Your task to perform on an android device: toggle notifications settings in the gmail app Image 0: 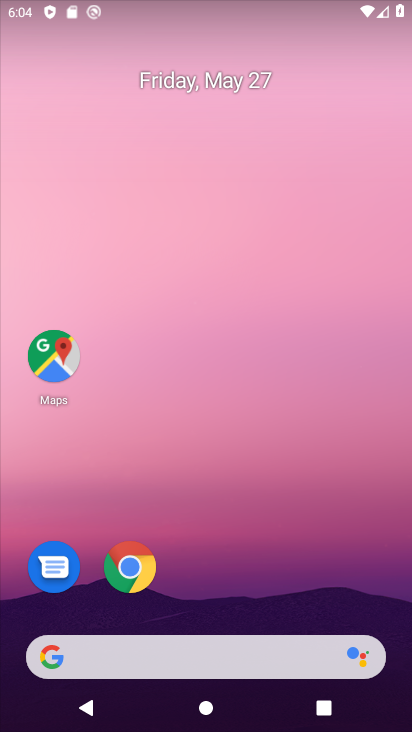
Step 0: drag from (247, 589) to (170, 0)
Your task to perform on an android device: toggle notifications settings in the gmail app Image 1: 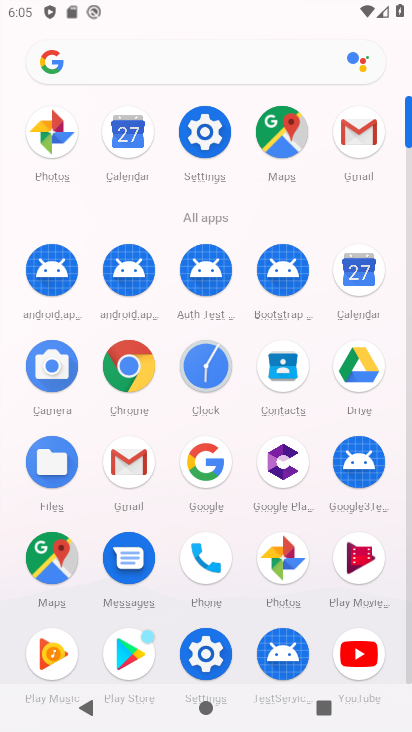
Step 1: click (353, 132)
Your task to perform on an android device: toggle notifications settings in the gmail app Image 2: 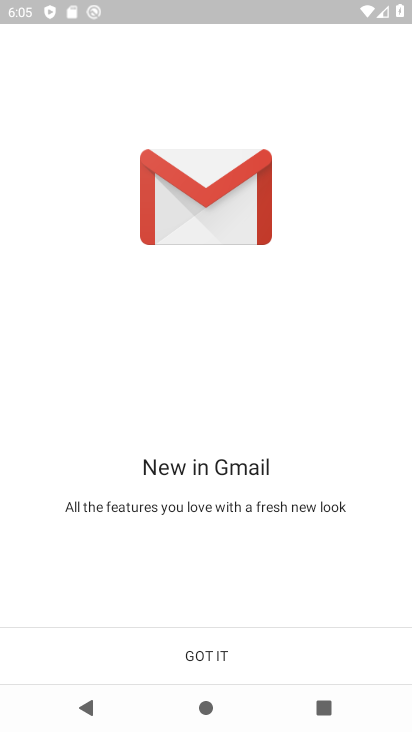
Step 2: click (218, 661)
Your task to perform on an android device: toggle notifications settings in the gmail app Image 3: 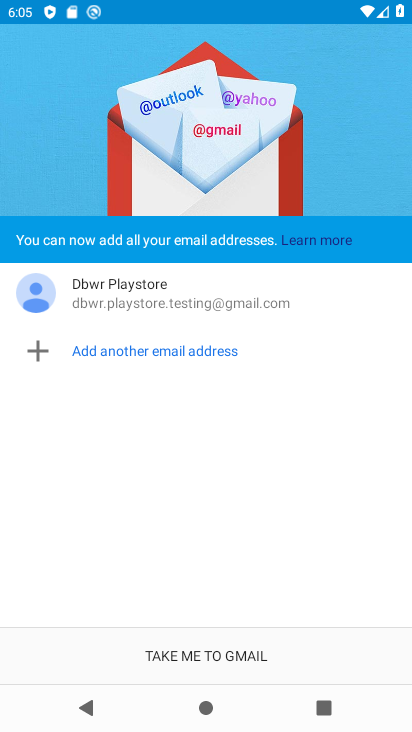
Step 3: click (210, 656)
Your task to perform on an android device: toggle notifications settings in the gmail app Image 4: 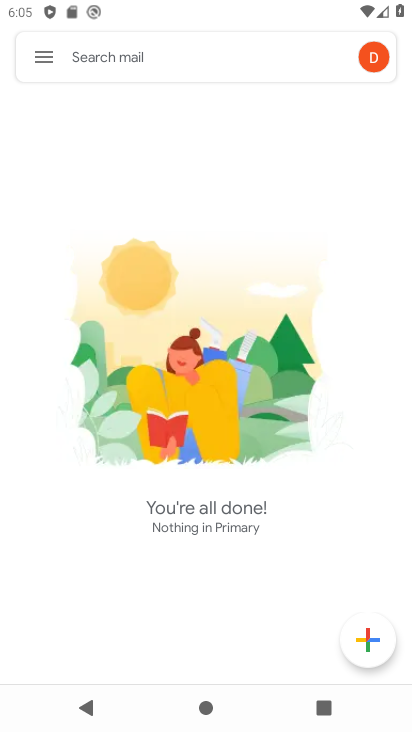
Step 4: click (41, 56)
Your task to perform on an android device: toggle notifications settings in the gmail app Image 5: 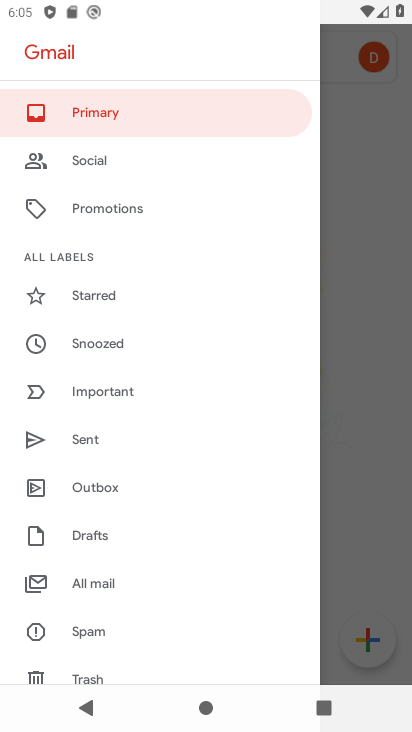
Step 5: drag from (116, 625) to (111, 271)
Your task to perform on an android device: toggle notifications settings in the gmail app Image 6: 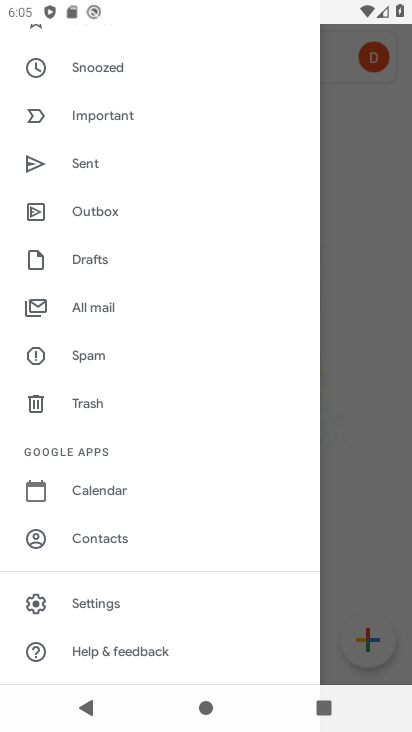
Step 6: drag from (120, 624) to (203, 151)
Your task to perform on an android device: toggle notifications settings in the gmail app Image 7: 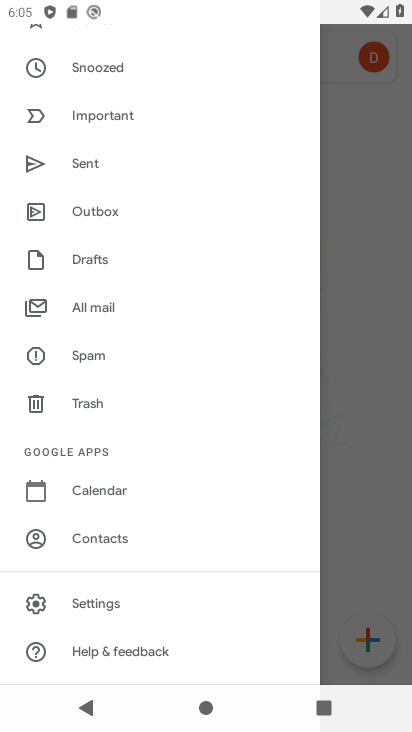
Step 7: click (106, 603)
Your task to perform on an android device: toggle notifications settings in the gmail app Image 8: 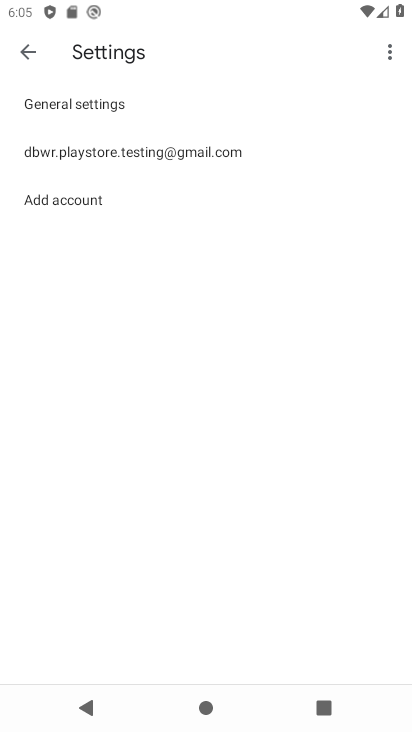
Step 8: click (113, 158)
Your task to perform on an android device: toggle notifications settings in the gmail app Image 9: 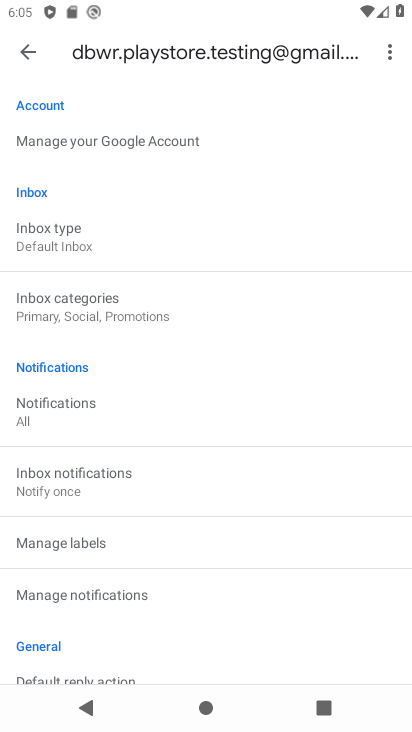
Step 9: click (81, 407)
Your task to perform on an android device: toggle notifications settings in the gmail app Image 10: 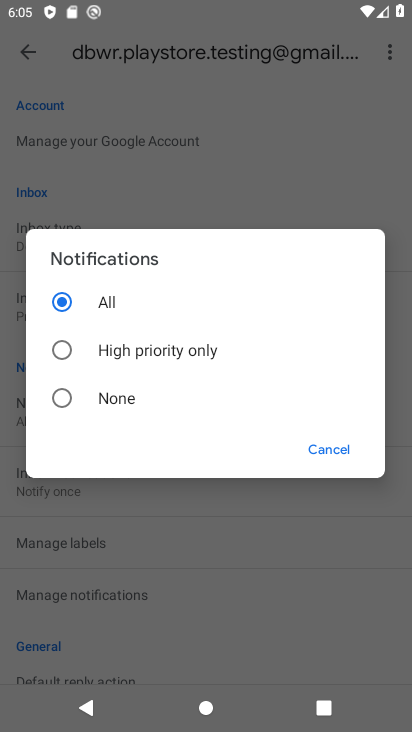
Step 10: click (69, 403)
Your task to perform on an android device: toggle notifications settings in the gmail app Image 11: 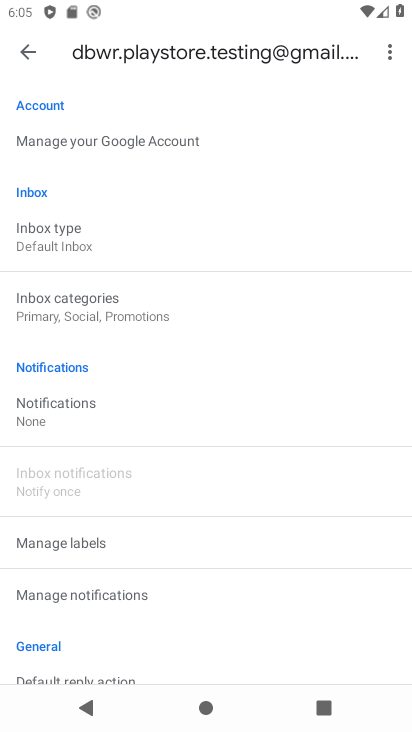
Step 11: task complete